Your task to perform on an android device: find snoozed emails in the gmail app Image 0: 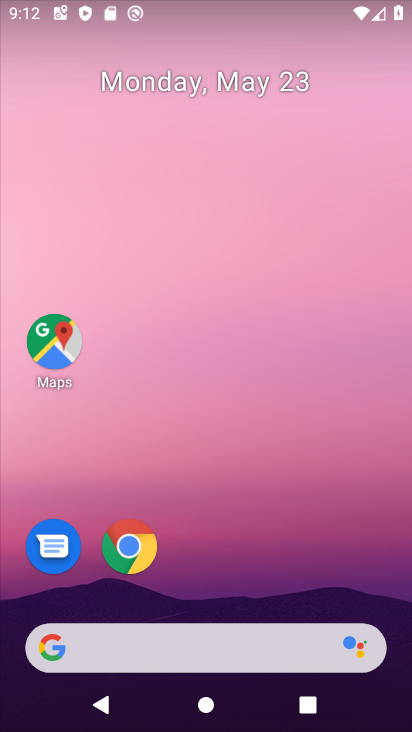
Step 0: drag from (397, 610) to (370, 98)
Your task to perform on an android device: find snoozed emails in the gmail app Image 1: 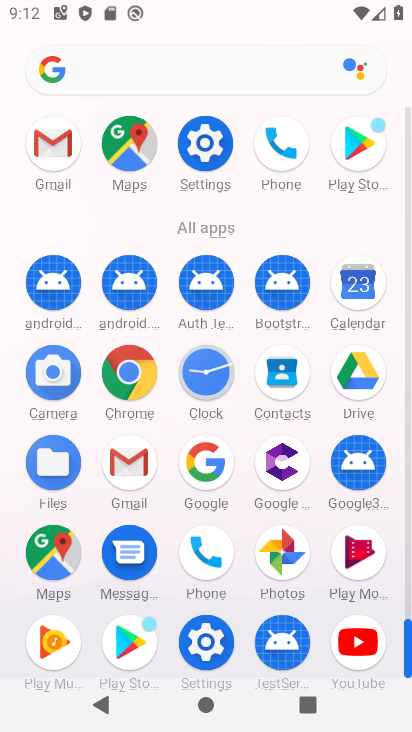
Step 1: click (124, 459)
Your task to perform on an android device: find snoozed emails in the gmail app Image 2: 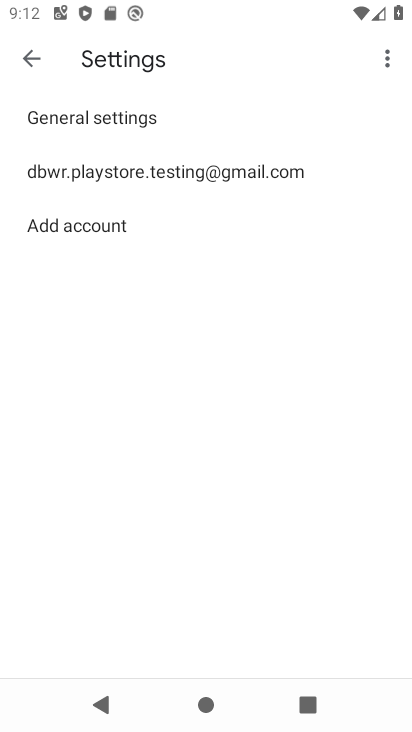
Step 2: press back button
Your task to perform on an android device: find snoozed emails in the gmail app Image 3: 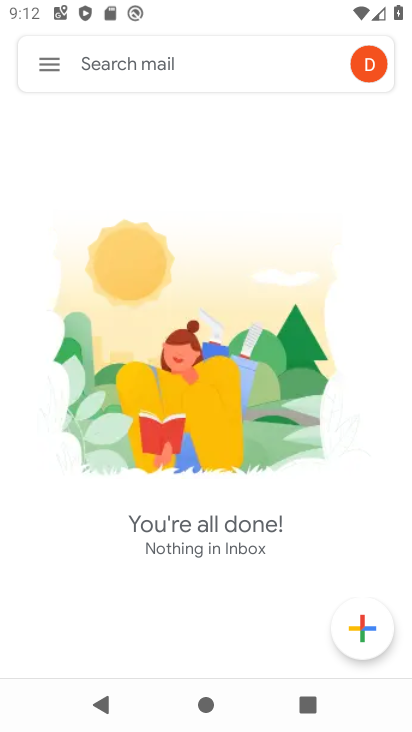
Step 3: click (53, 61)
Your task to perform on an android device: find snoozed emails in the gmail app Image 4: 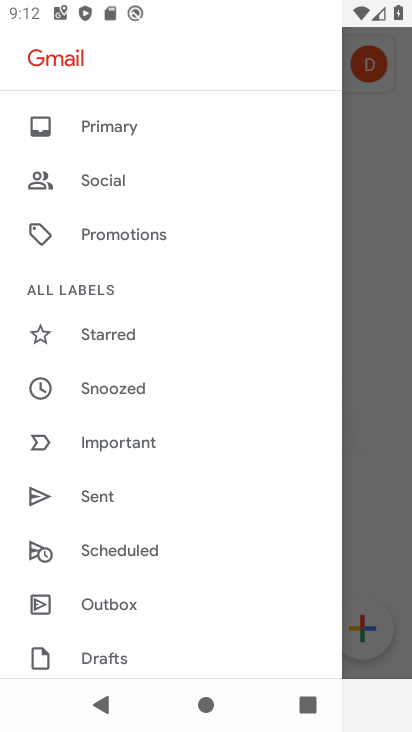
Step 4: click (106, 378)
Your task to perform on an android device: find snoozed emails in the gmail app Image 5: 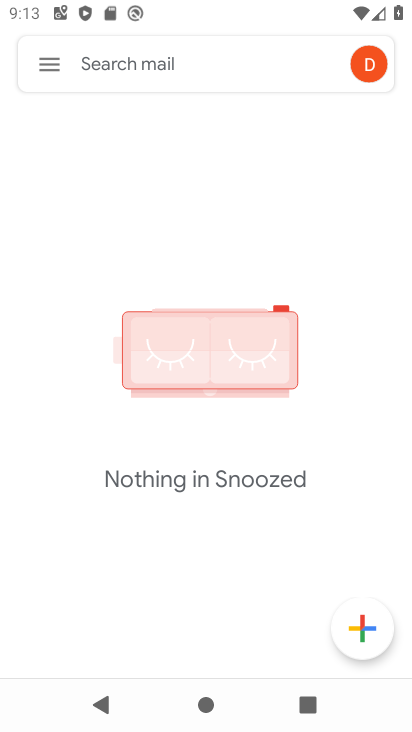
Step 5: task complete